Your task to perform on an android device: check android version Image 0: 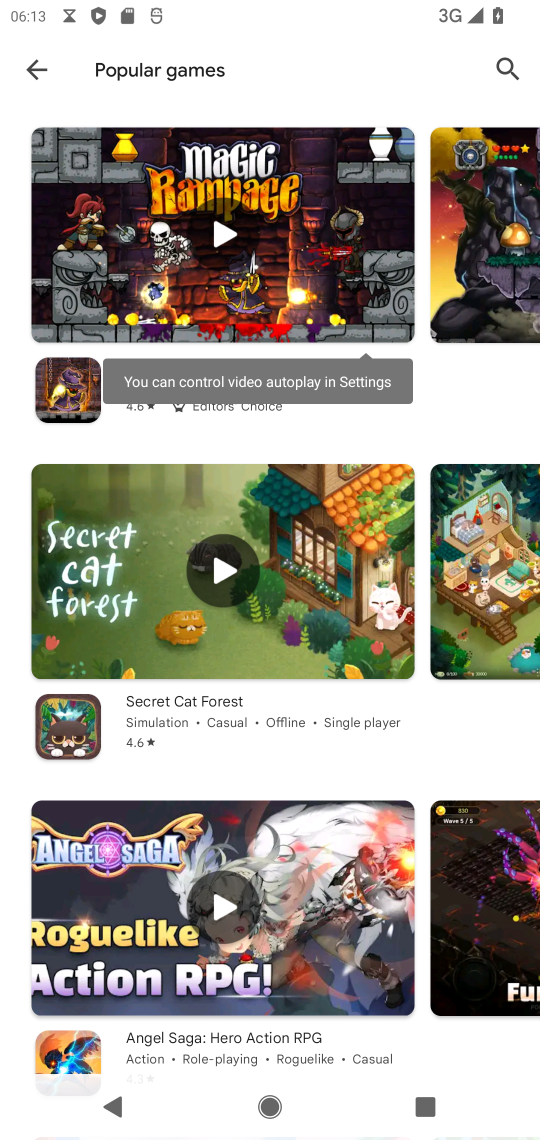
Step 0: press home button
Your task to perform on an android device: check android version Image 1: 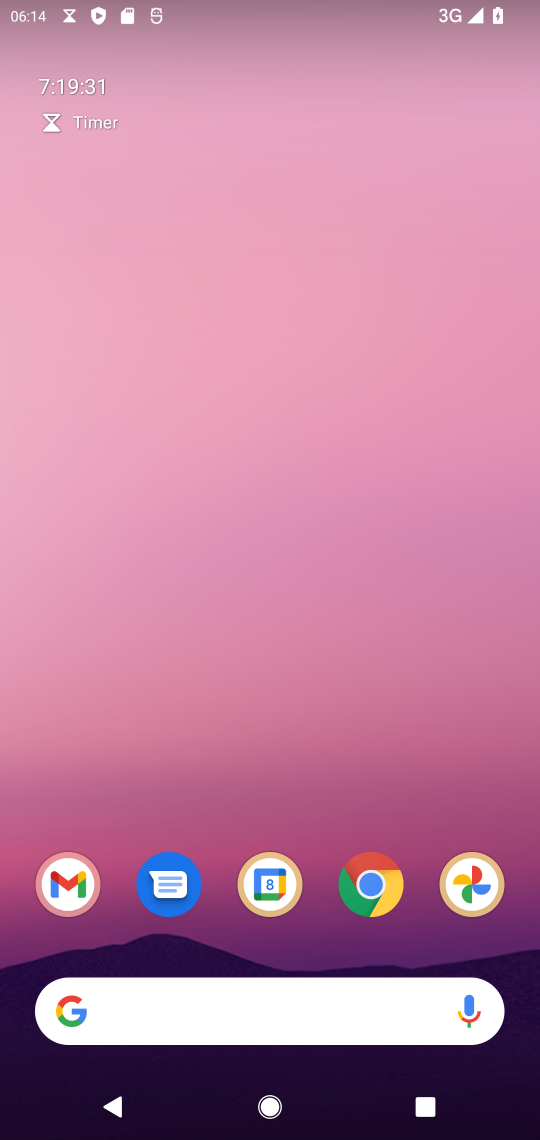
Step 1: drag from (317, 830) to (323, 140)
Your task to perform on an android device: check android version Image 2: 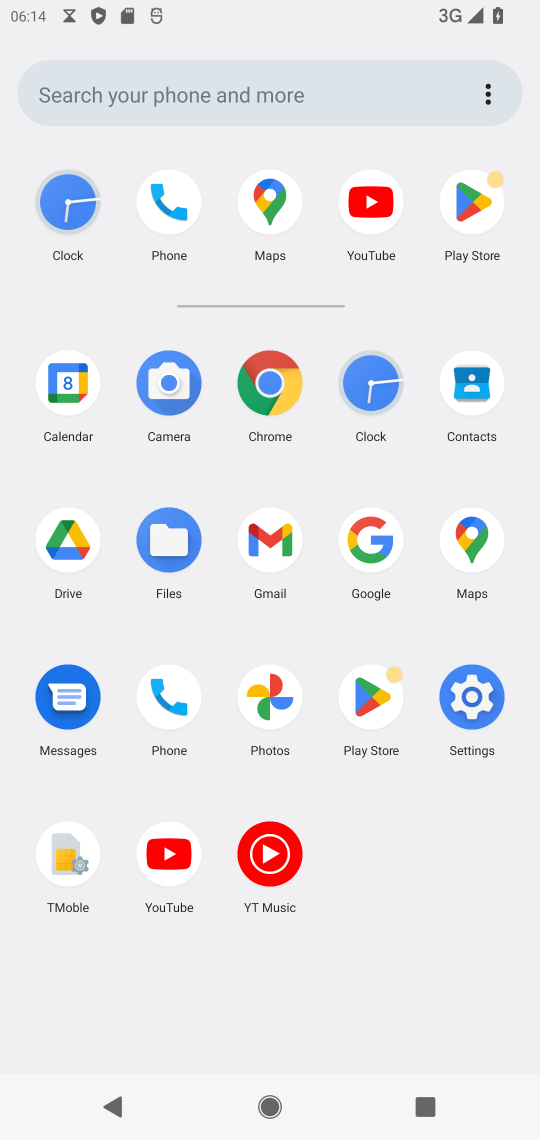
Step 2: click (454, 688)
Your task to perform on an android device: check android version Image 3: 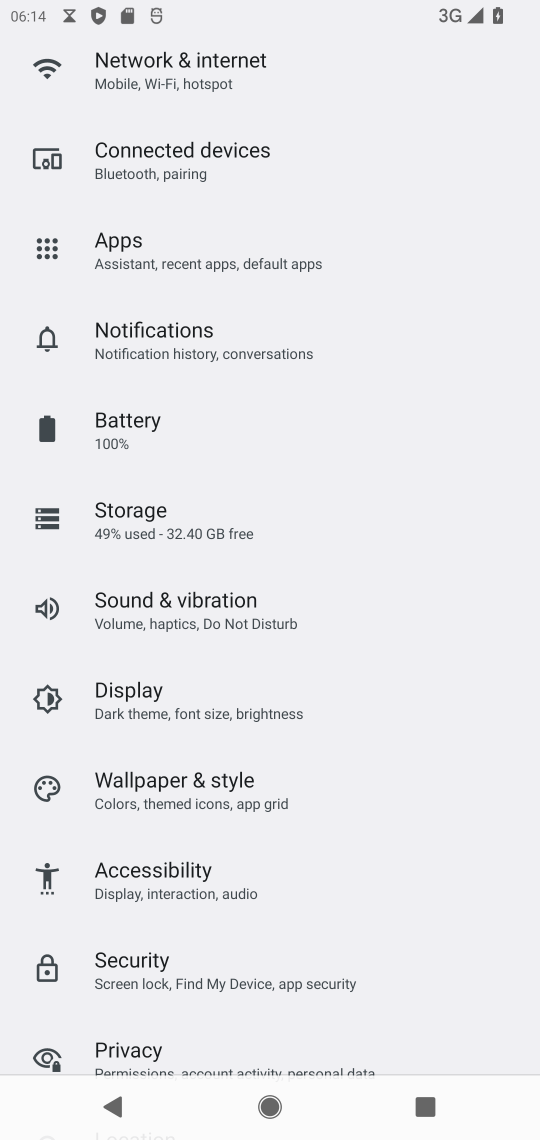
Step 3: drag from (285, 933) to (237, 370)
Your task to perform on an android device: check android version Image 4: 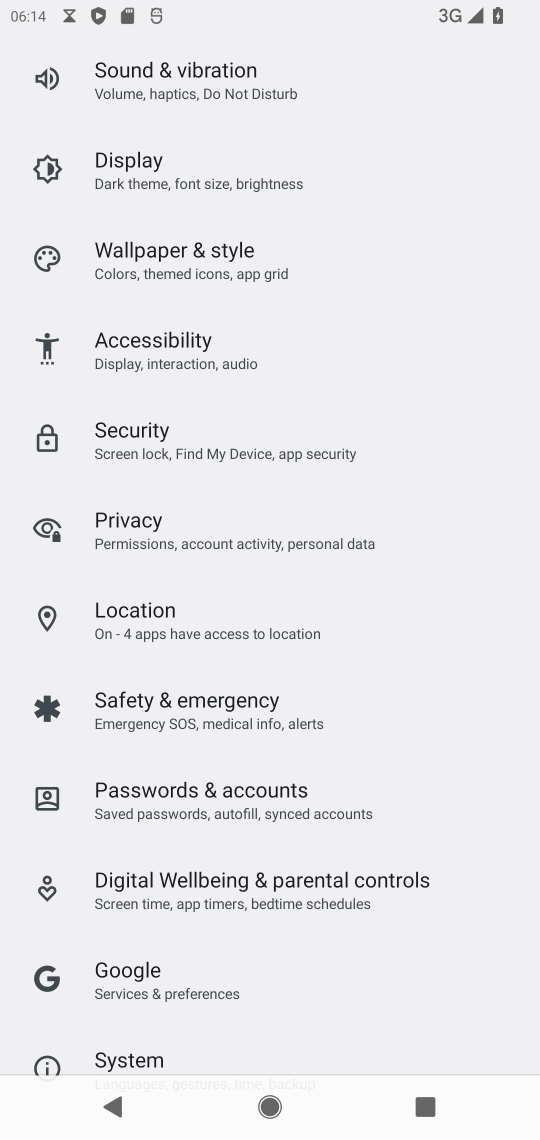
Step 4: drag from (307, 1046) to (254, 493)
Your task to perform on an android device: check android version Image 5: 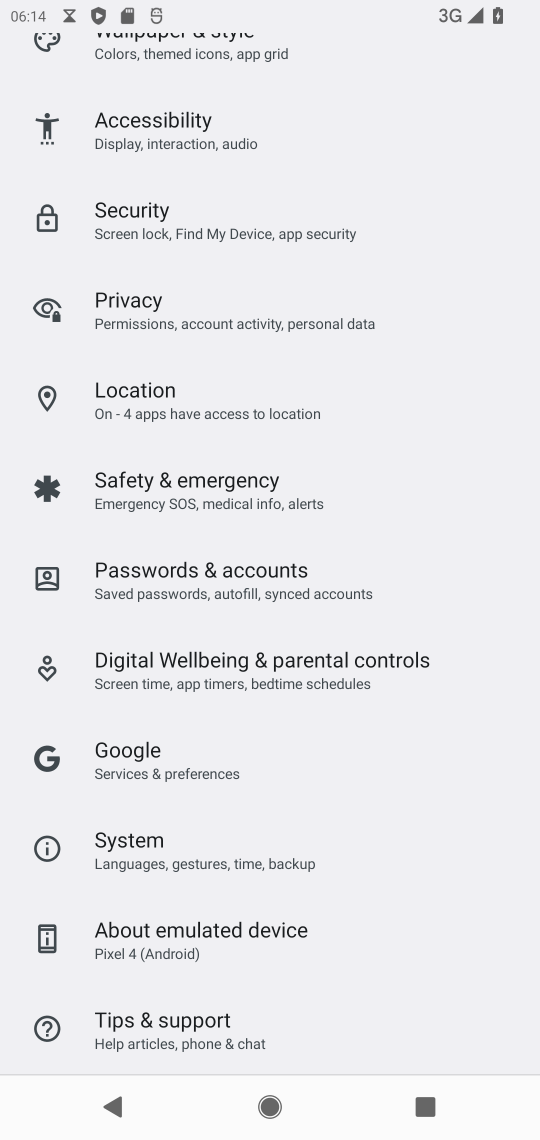
Step 5: click (268, 942)
Your task to perform on an android device: check android version Image 6: 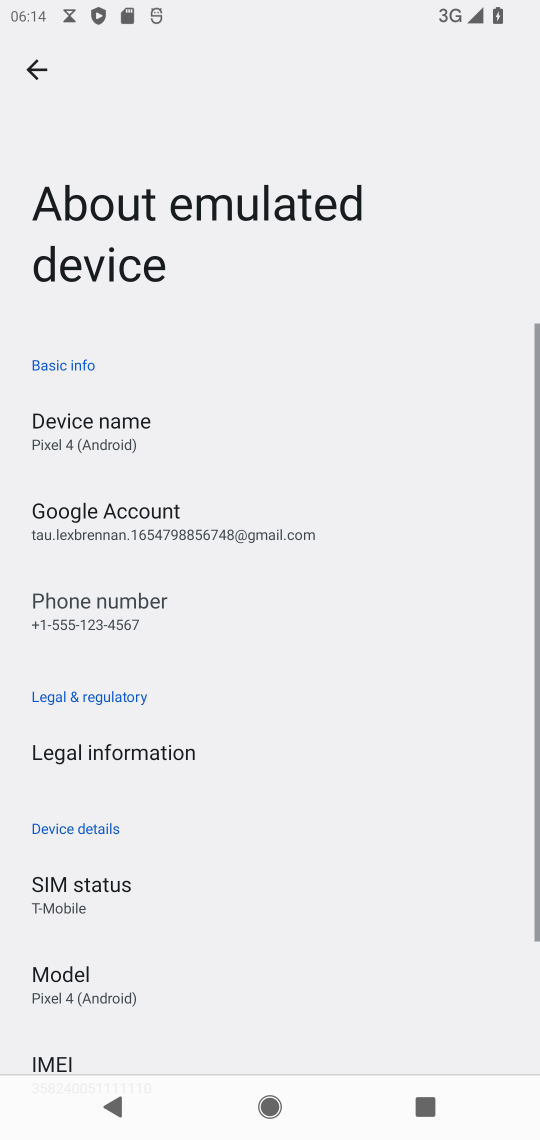
Step 6: drag from (226, 965) to (128, 284)
Your task to perform on an android device: check android version Image 7: 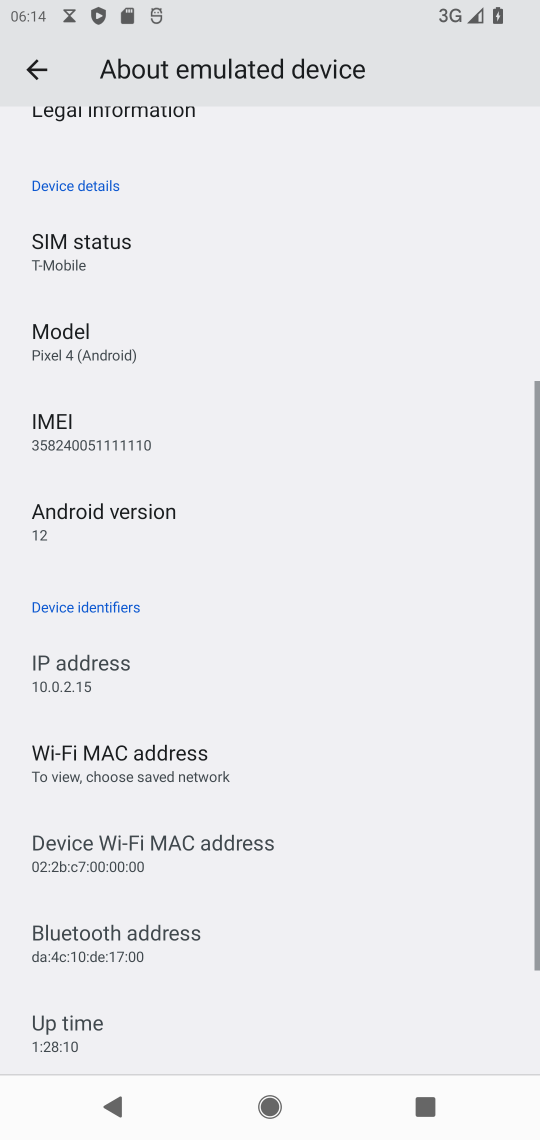
Step 7: click (267, 523)
Your task to perform on an android device: check android version Image 8: 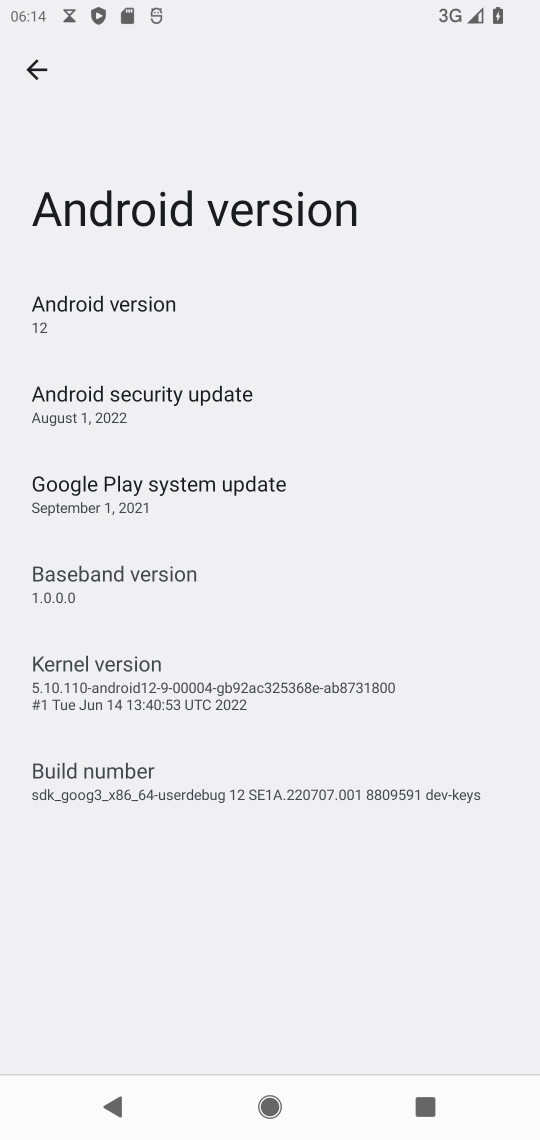
Step 8: task complete